Your task to perform on an android device: Check the weather Image 0: 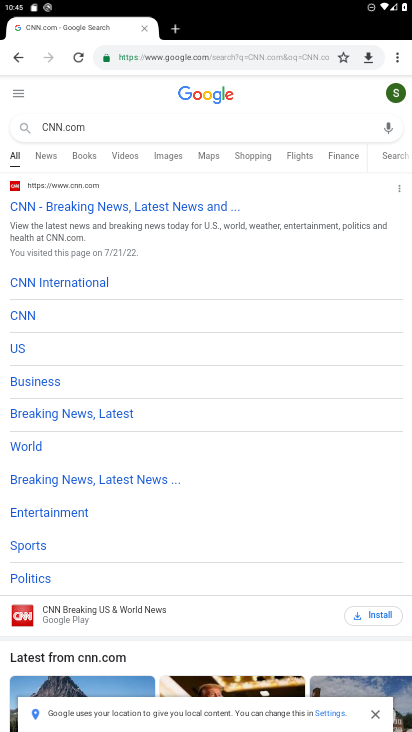
Step 0: press home button
Your task to perform on an android device: Check the weather Image 1: 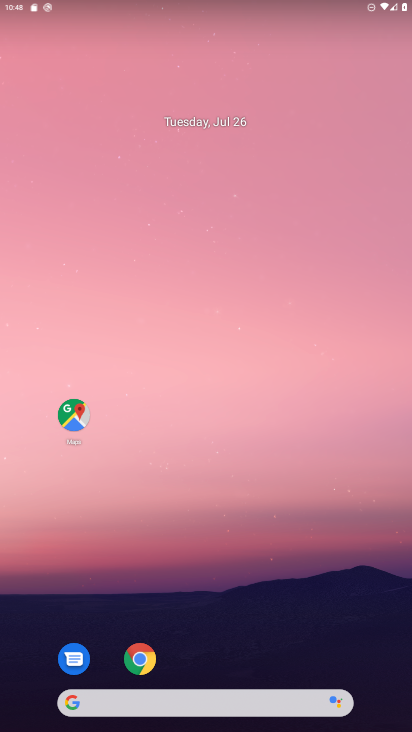
Step 1: task complete